Your task to perform on an android device: Search for vegetarian restaurants on Maps Image 0: 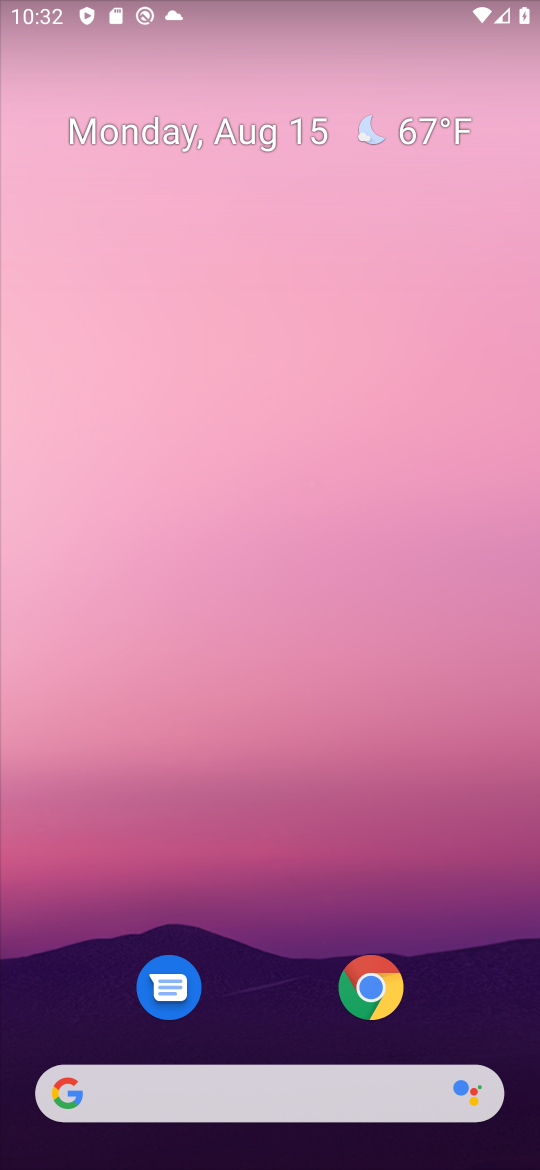
Step 0: drag from (287, 1056) to (150, 184)
Your task to perform on an android device: Search for vegetarian restaurants on Maps Image 1: 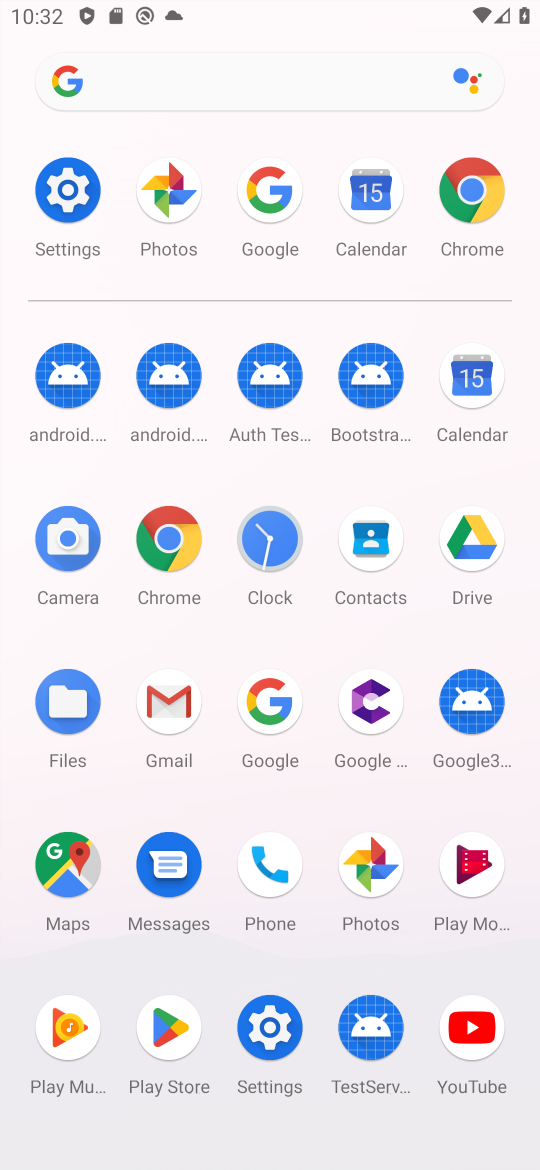
Step 1: click (40, 872)
Your task to perform on an android device: Search for vegetarian restaurants on Maps Image 2: 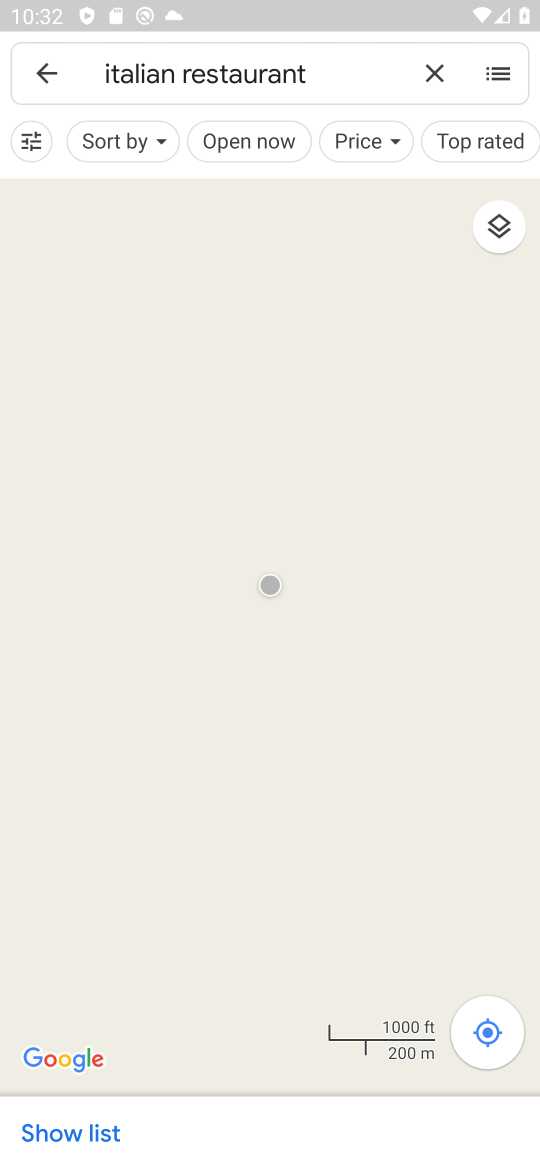
Step 2: click (437, 66)
Your task to perform on an android device: Search for vegetarian restaurants on Maps Image 3: 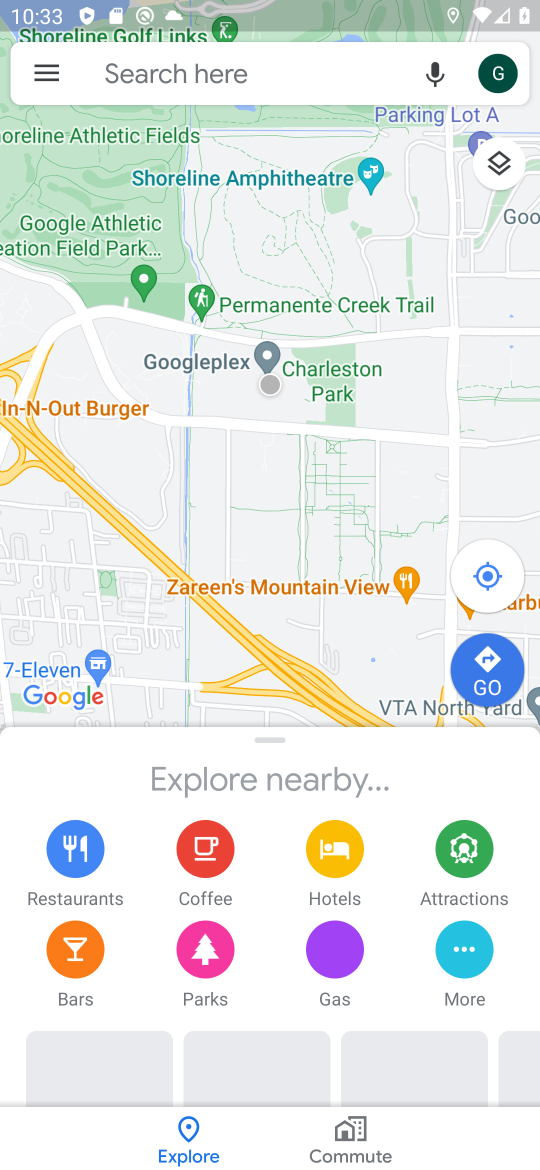
Step 3: click (282, 92)
Your task to perform on an android device: Search for vegetarian restaurants on Maps Image 4: 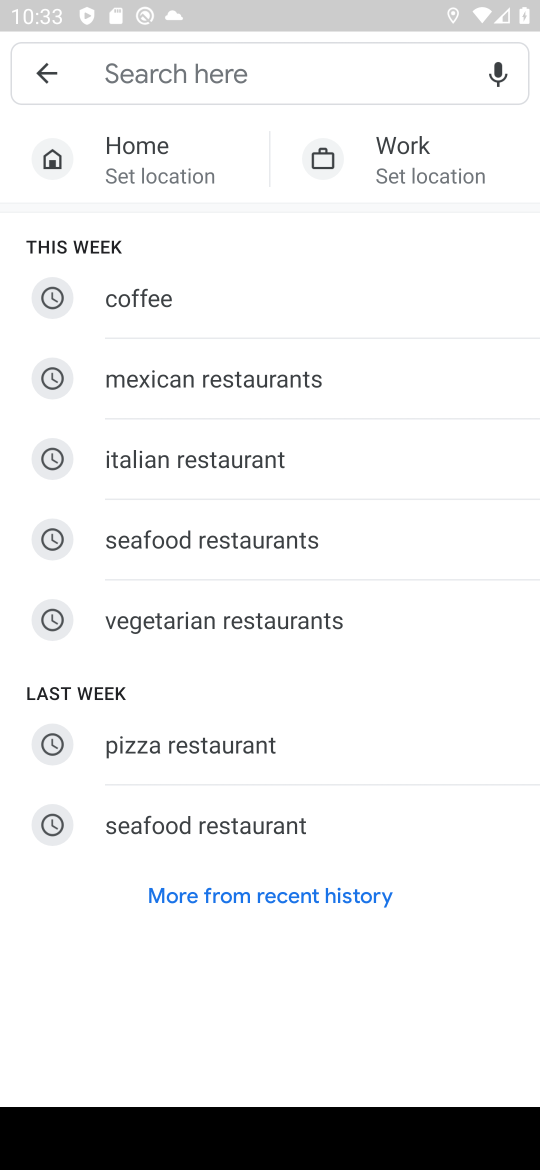
Step 4: click (185, 608)
Your task to perform on an android device: Search for vegetarian restaurants on Maps Image 5: 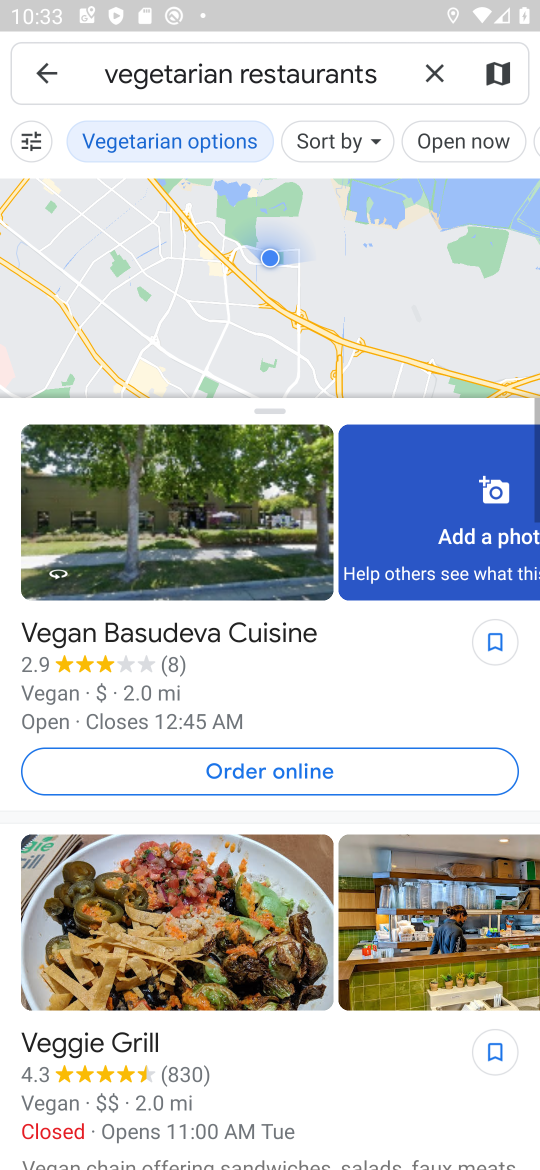
Step 5: task complete